Your task to perform on an android device: Is it going to rain tomorrow? Image 0: 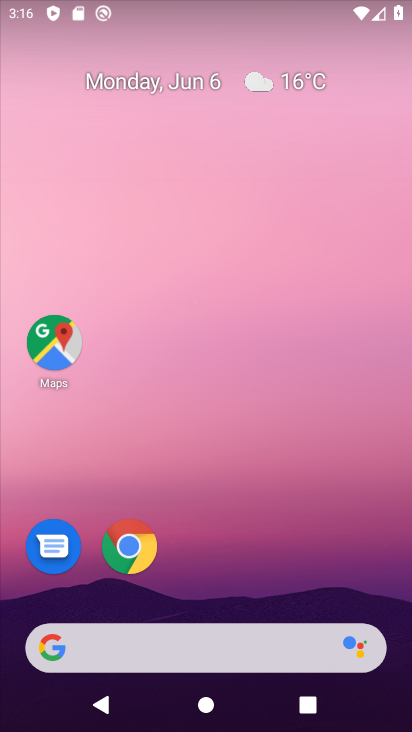
Step 0: click (303, 92)
Your task to perform on an android device: Is it going to rain tomorrow? Image 1: 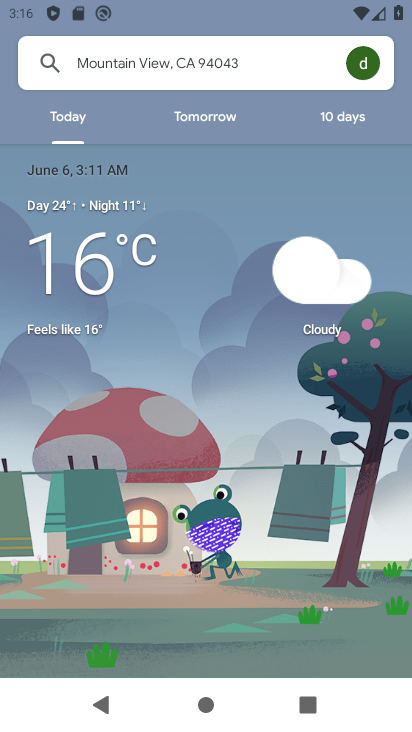
Step 1: click (210, 102)
Your task to perform on an android device: Is it going to rain tomorrow? Image 2: 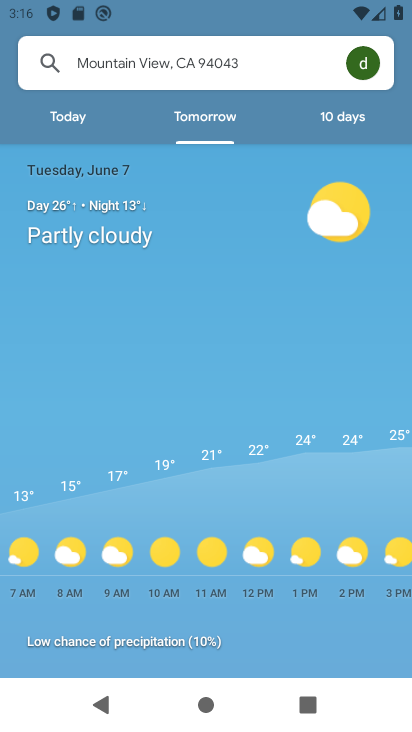
Step 2: task complete